Your task to perform on an android device: Show me the alarms in the clock app Image 0: 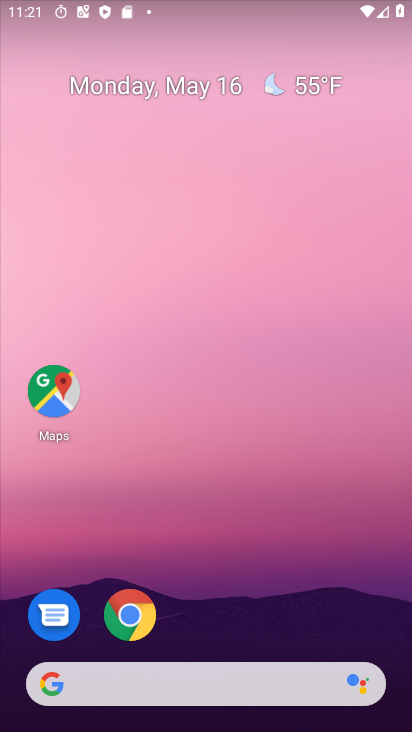
Step 0: press home button
Your task to perform on an android device: Show me the alarms in the clock app Image 1: 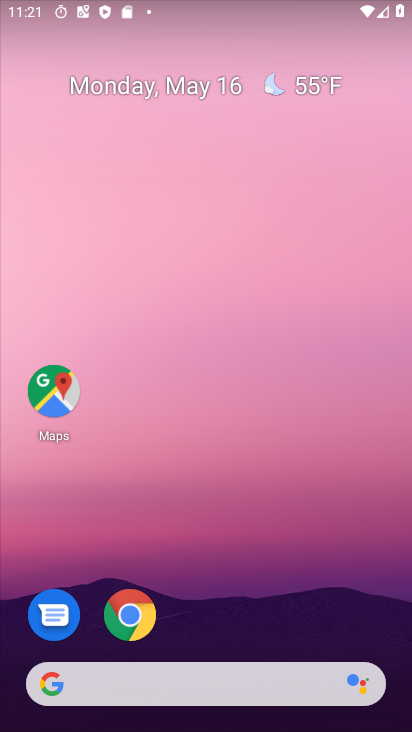
Step 1: press home button
Your task to perform on an android device: Show me the alarms in the clock app Image 2: 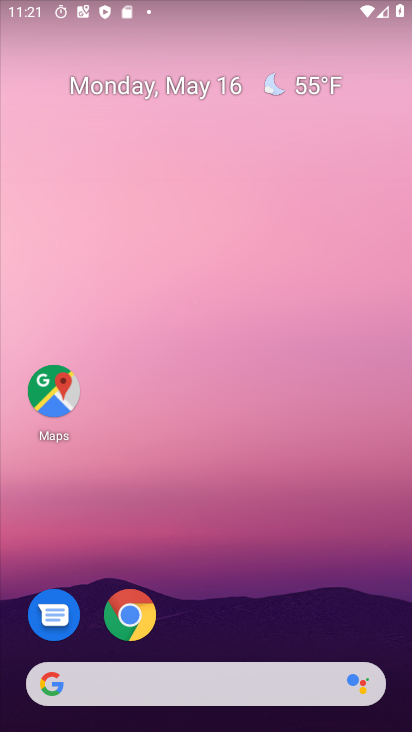
Step 2: press home button
Your task to perform on an android device: Show me the alarms in the clock app Image 3: 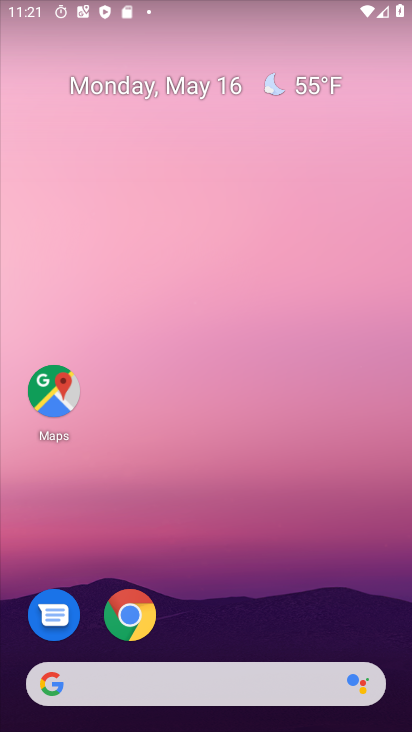
Step 3: press home button
Your task to perform on an android device: Show me the alarms in the clock app Image 4: 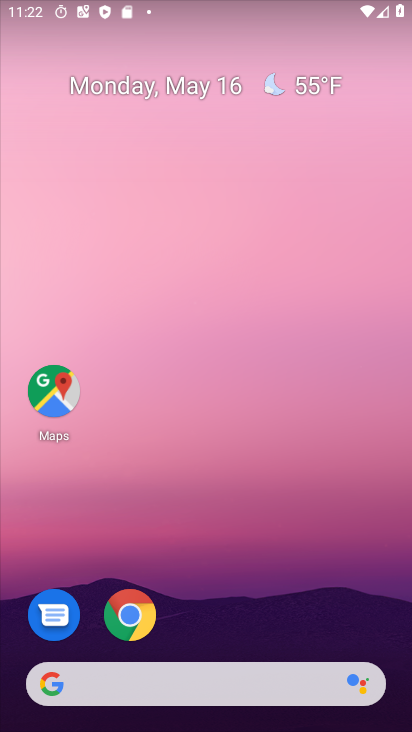
Step 4: drag from (274, 611) to (307, 3)
Your task to perform on an android device: Show me the alarms in the clock app Image 5: 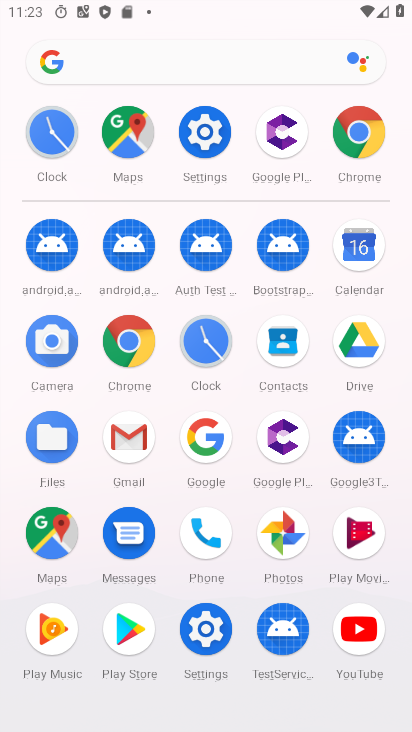
Step 5: click (202, 365)
Your task to perform on an android device: Show me the alarms in the clock app Image 6: 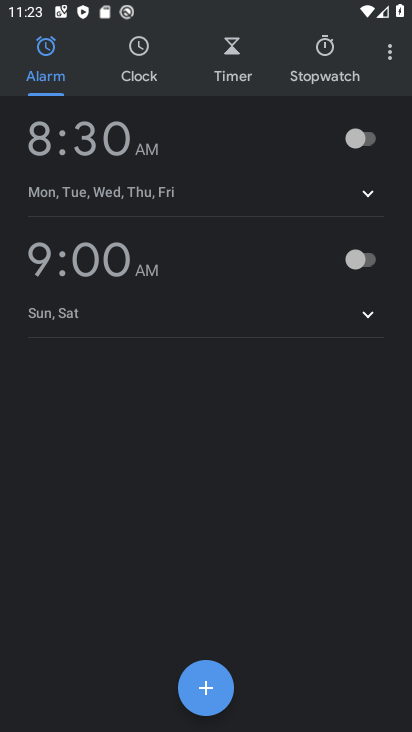
Step 6: task complete